Your task to perform on an android device: What's the weather? Image 0: 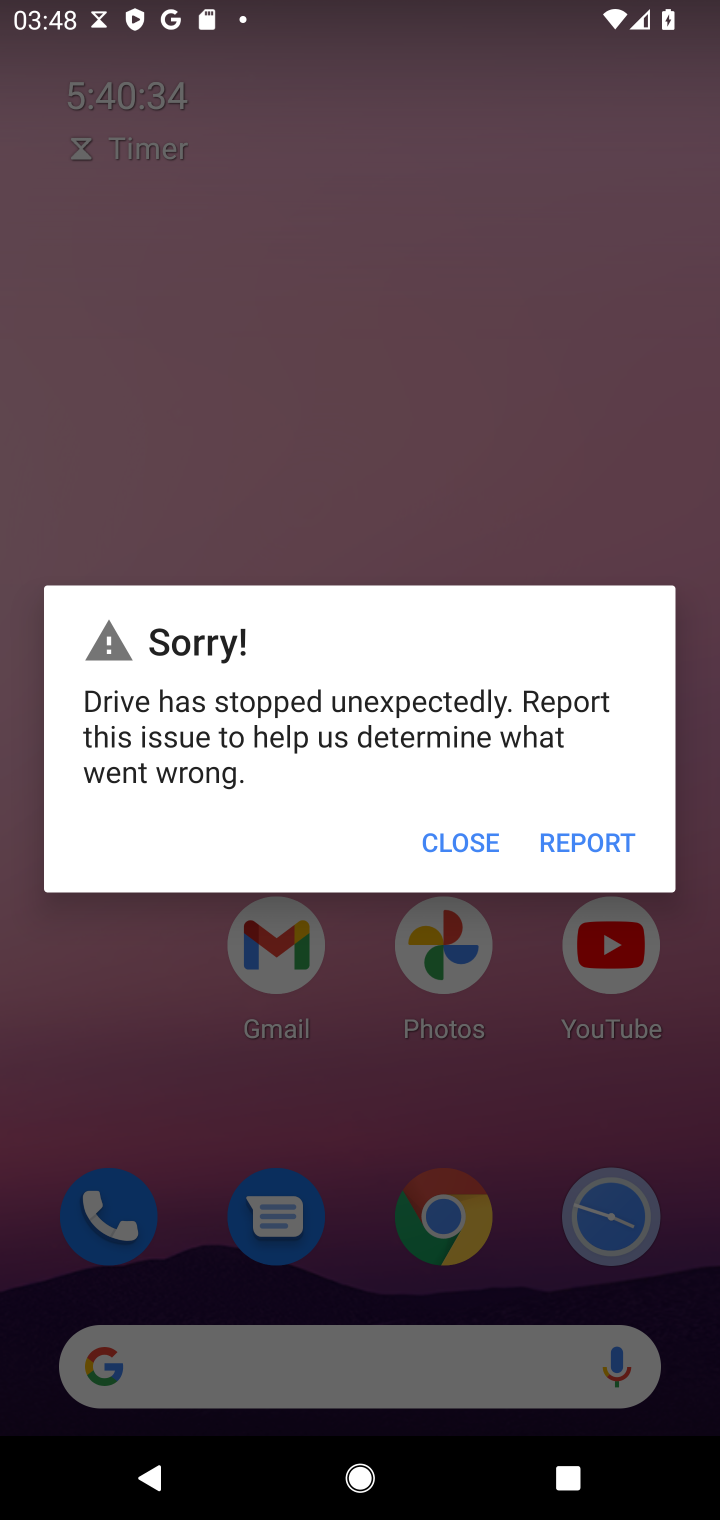
Step 0: press home button
Your task to perform on an android device: What's the weather? Image 1: 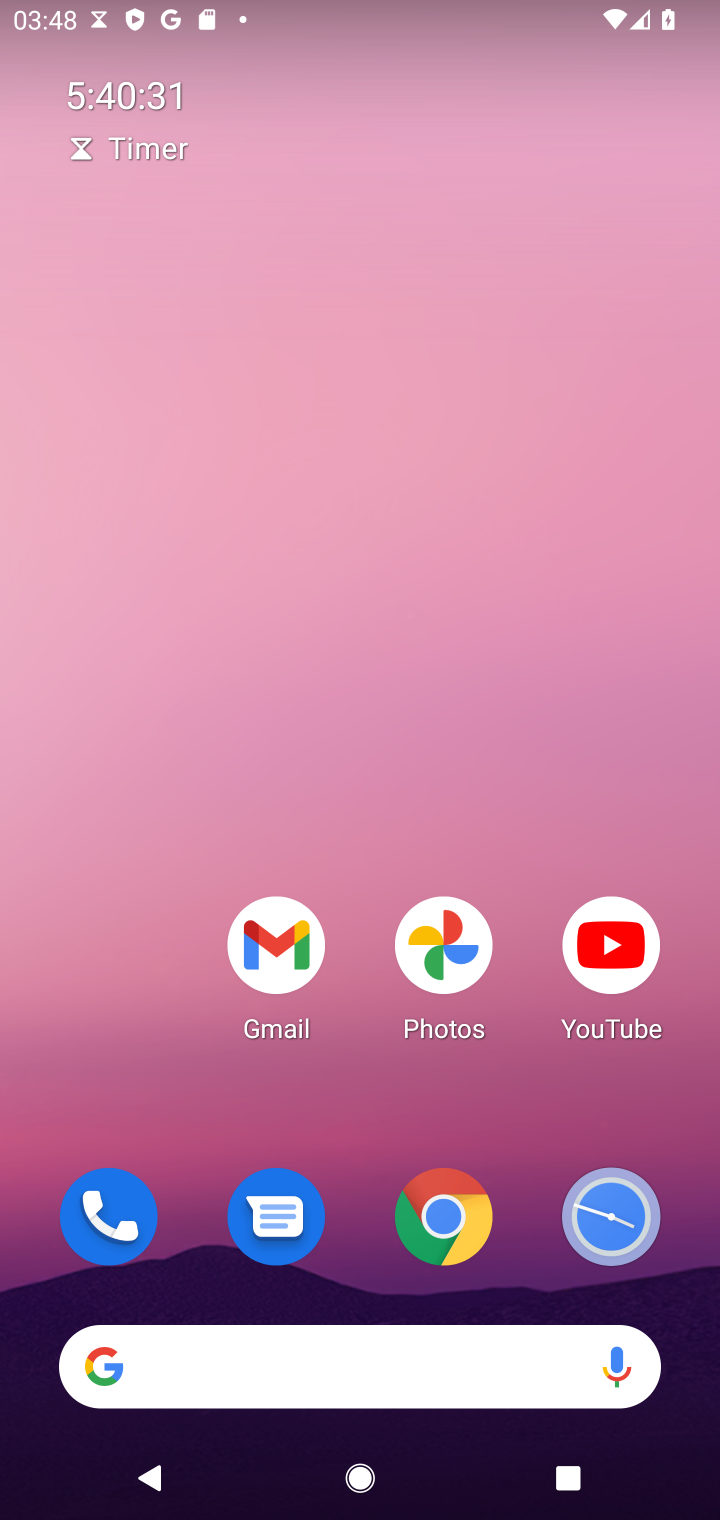
Step 1: click (371, 1371)
Your task to perform on an android device: What's the weather? Image 2: 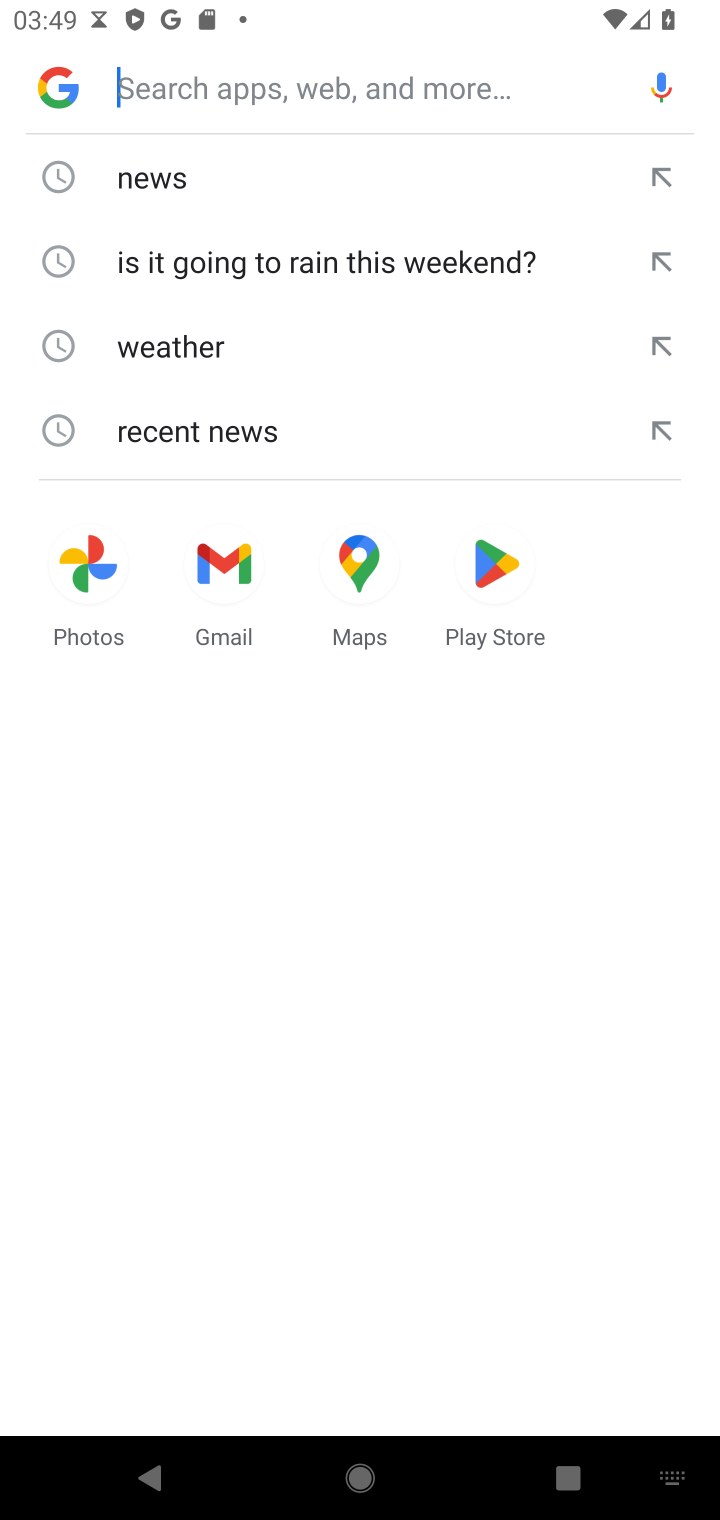
Step 2: type "what's the weather"
Your task to perform on an android device: What's the weather? Image 3: 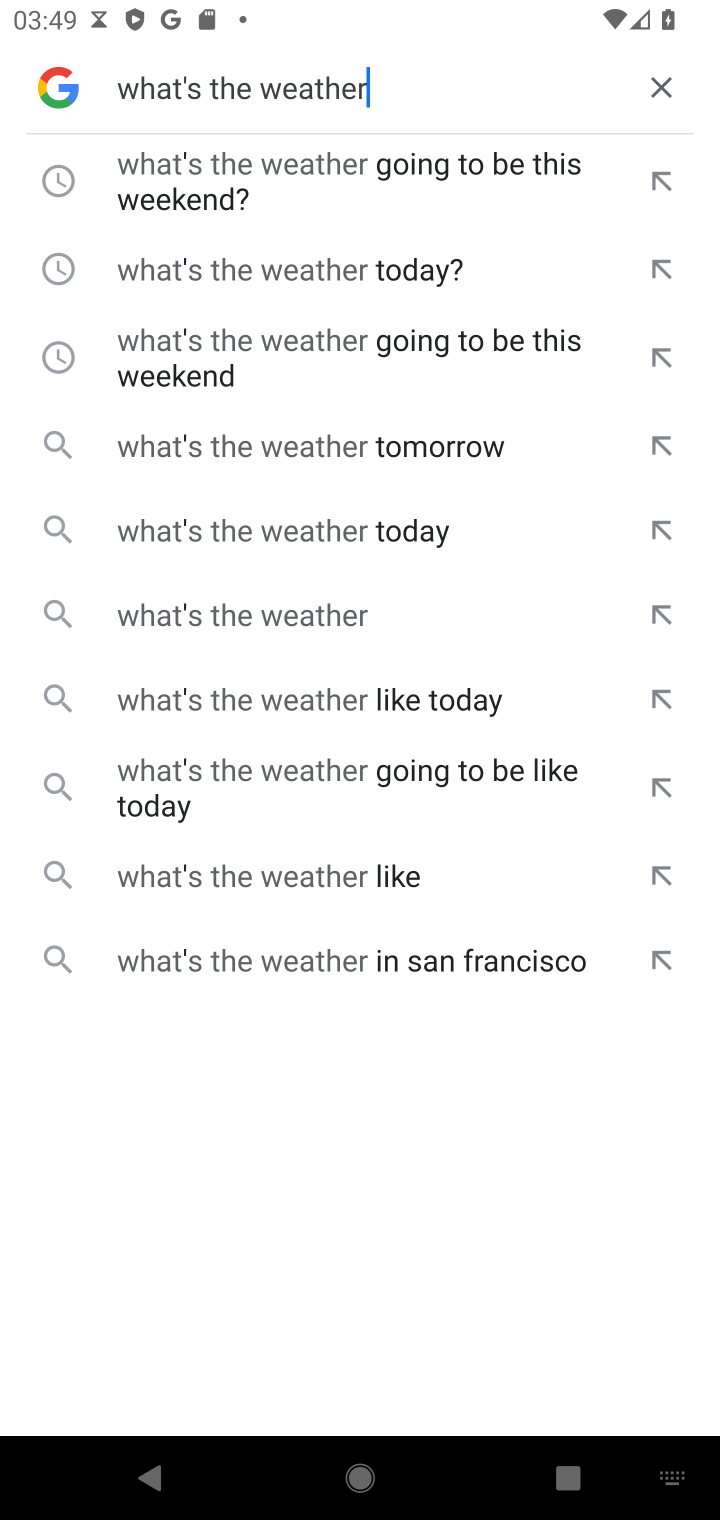
Step 3: click (348, 596)
Your task to perform on an android device: What's the weather? Image 4: 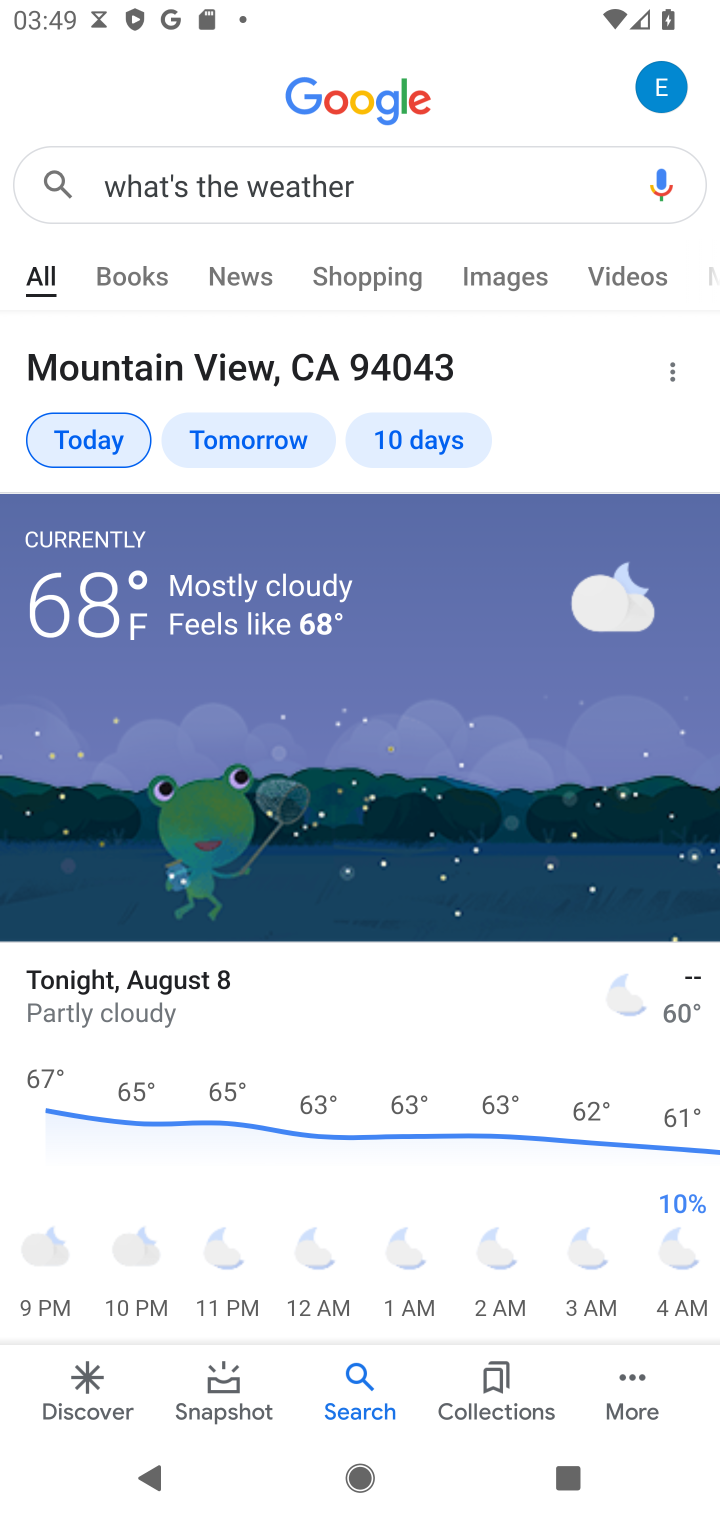
Step 4: task complete